Your task to perform on an android device: Go to Maps Image 0: 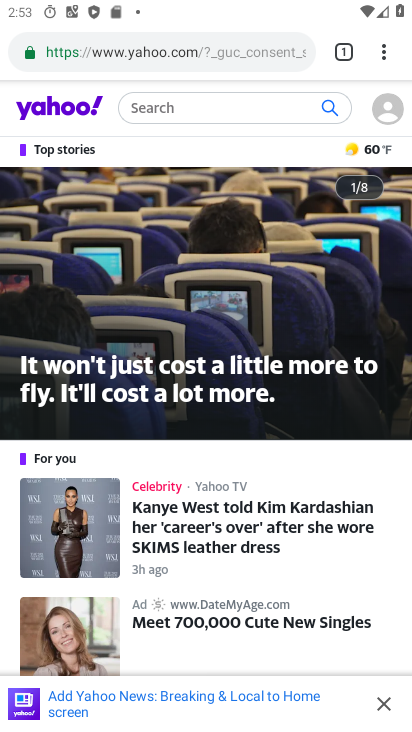
Step 0: press home button
Your task to perform on an android device: Go to Maps Image 1: 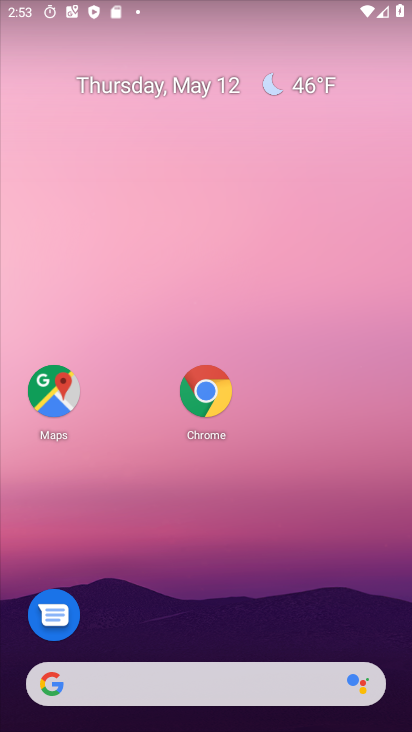
Step 1: click (49, 390)
Your task to perform on an android device: Go to Maps Image 2: 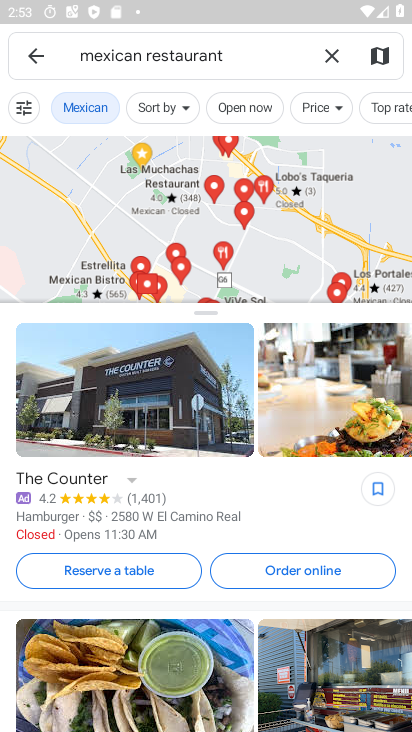
Step 2: task complete